Your task to perform on an android device: turn on wifi Image 0: 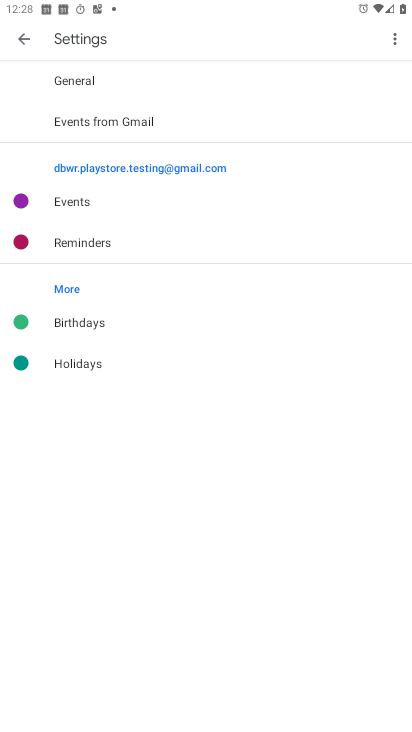
Step 0: press home button
Your task to perform on an android device: turn on wifi Image 1: 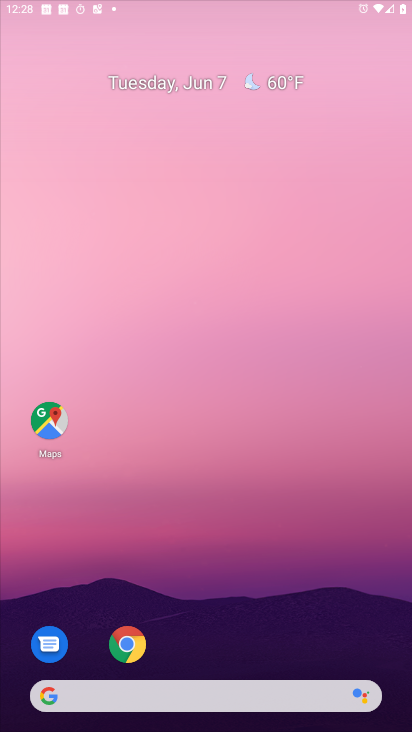
Step 1: task complete